Your task to perform on an android device: make emails show in primary in the gmail app Image 0: 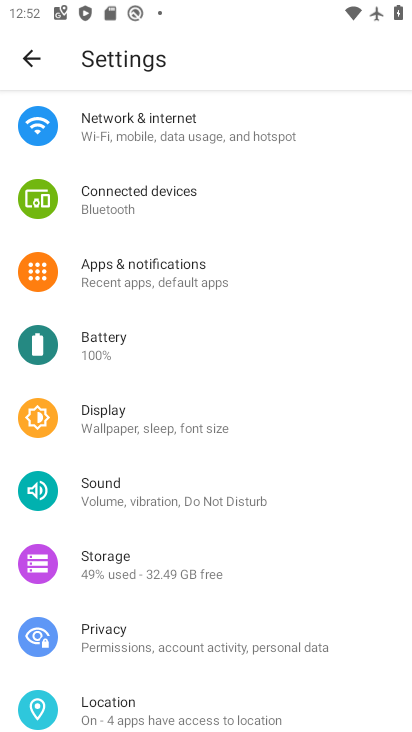
Step 0: press home button
Your task to perform on an android device: make emails show in primary in the gmail app Image 1: 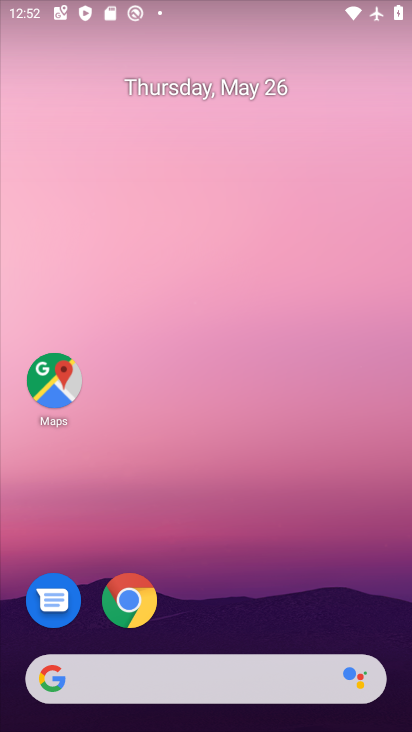
Step 1: drag from (331, 625) to (275, 144)
Your task to perform on an android device: make emails show in primary in the gmail app Image 2: 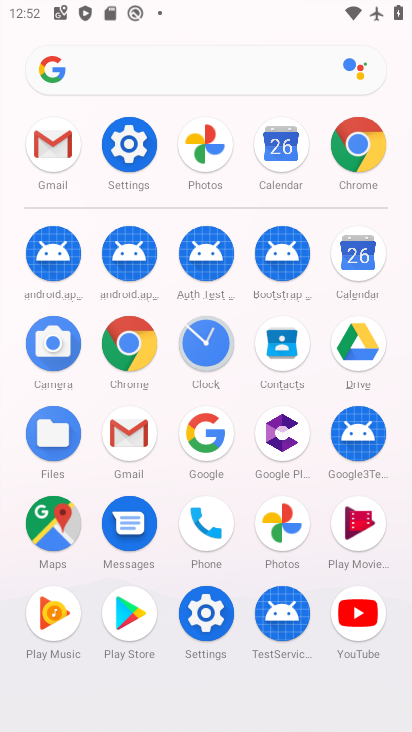
Step 2: click (43, 136)
Your task to perform on an android device: make emails show in primary in the gmail app Image 3: 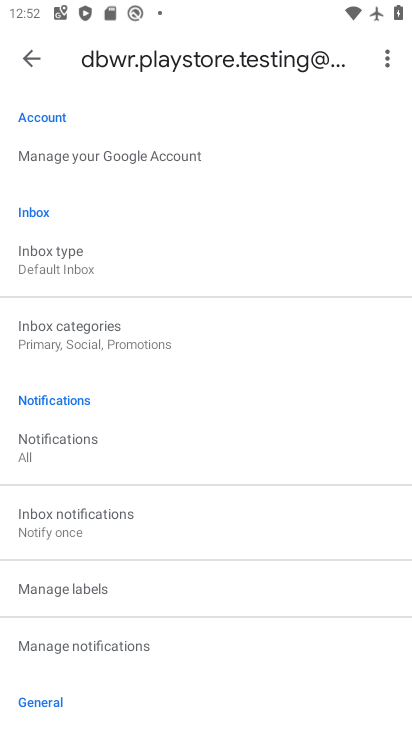
Step 3: click (68, 323)
Your task to perform on an android device: make emails show in primary in the gmail app Image 4: 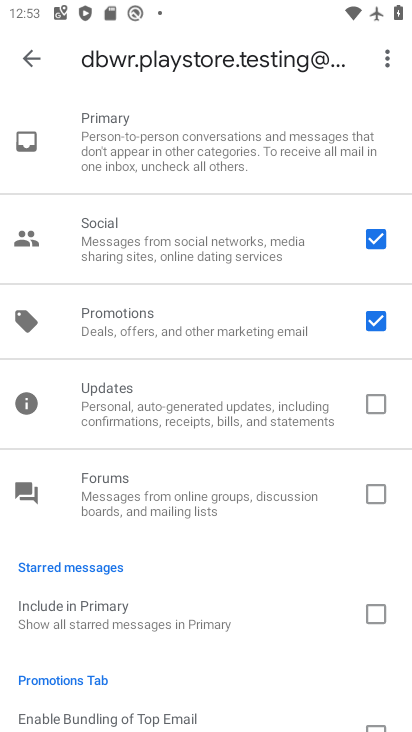
Step 4: task complete